Your task to perform on an android device: change timer sound Image 0: 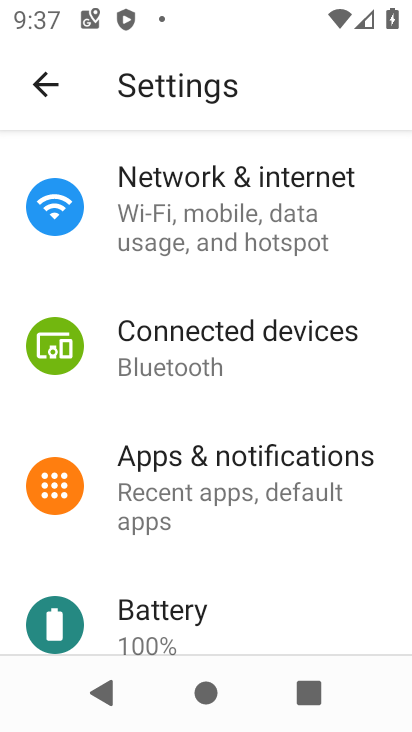
Step 0: drag from (322, 577) to (337, 247)
Your task to perform on an android device: change timer sound Image 1: 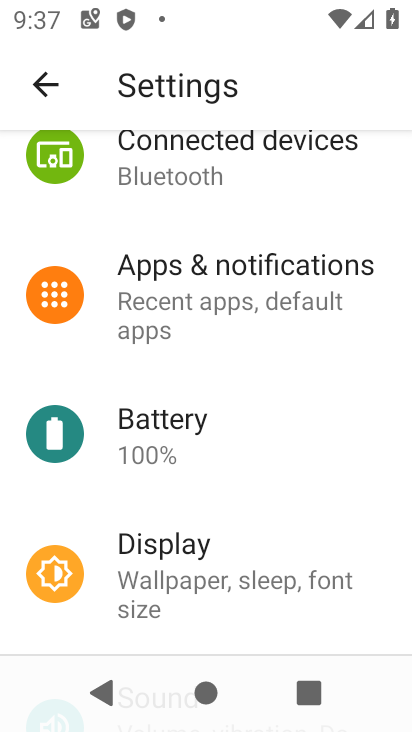
Step 1: drag from (323, 611) to (317, 275)
Your task to perform on an android device: change timer sound Image 2: 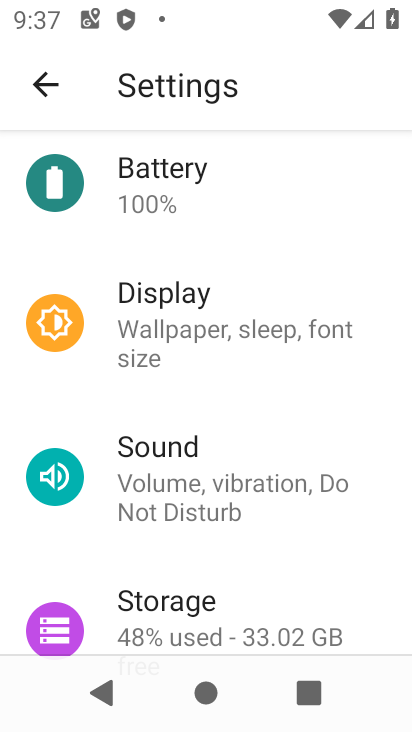
Step 2: press home button
Your task to perform on an android device: change timer sound Image 3: 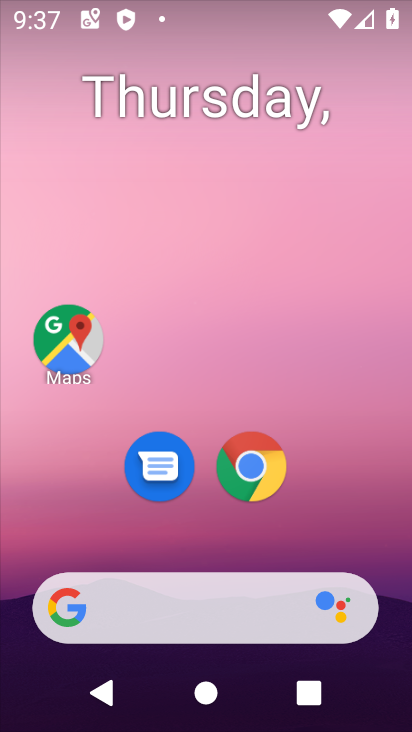
Step 3: drag from (357, 509) to (353, 89)
Your task to perform on an android device: change timer sound Image 4: 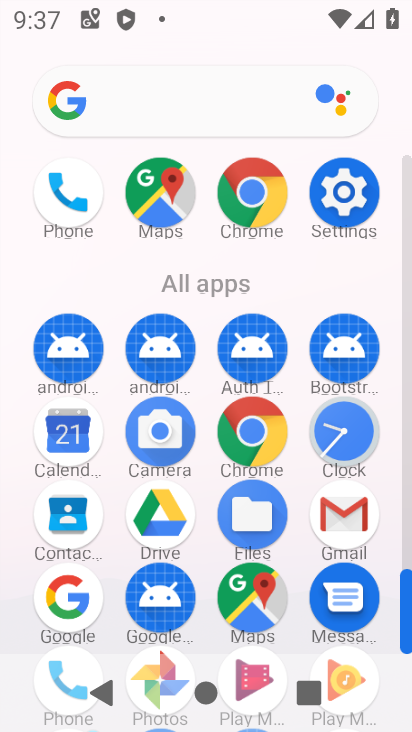
Step 4: click (347, 445)
Your task to perform on an android device: change timer sound Image 5: 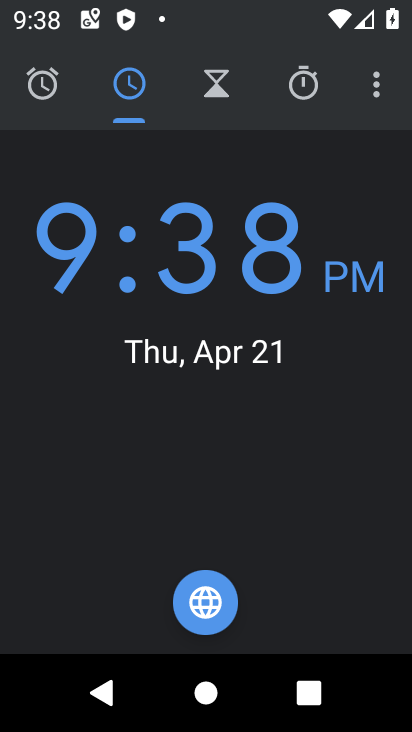
Step 5: click (381, 99)
Your task to perform on an android device: change timer sound Image 6: 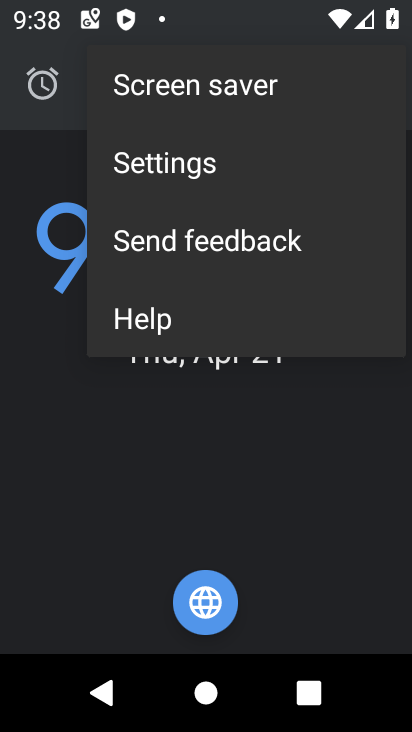
Step 6: click (207, 165)
Your task to perform on an android device: change timer sound Image 7: 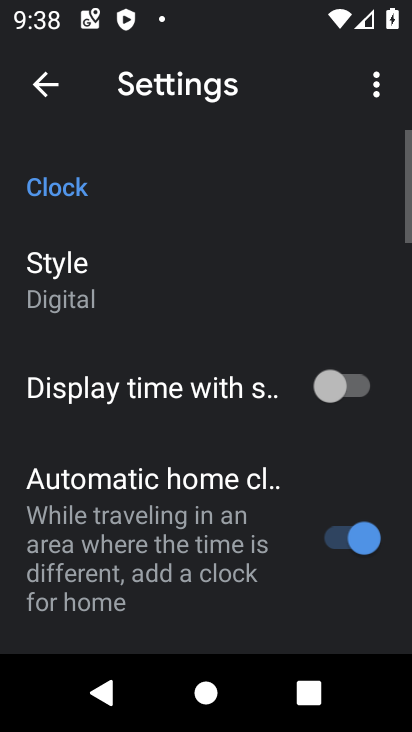
Step 7: drag from (187, 554) to (205, 301)
Your task to perform on an android device: change timer sound Image 8: 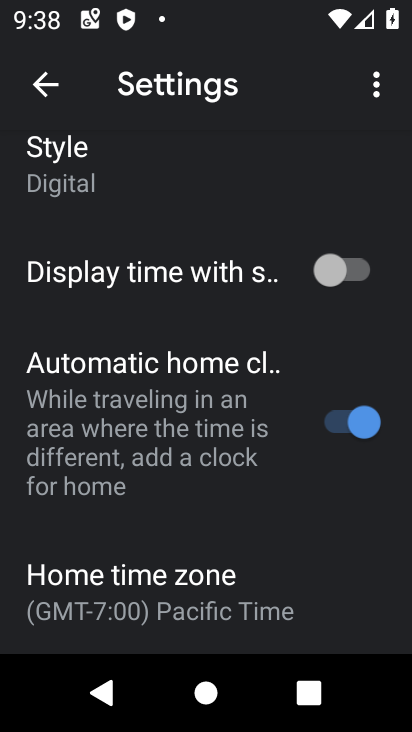
Step 8: drag from (209, 398) to (246, 197)
Your task to perform on an android device: change timer sound Image 9: 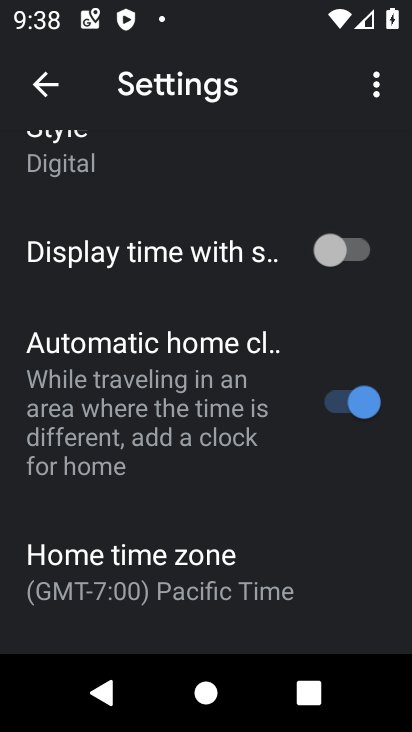
Step 9: drag from (192, 558) to (271, 193)
Your task to perform on an android device: change timer sound Image 10: 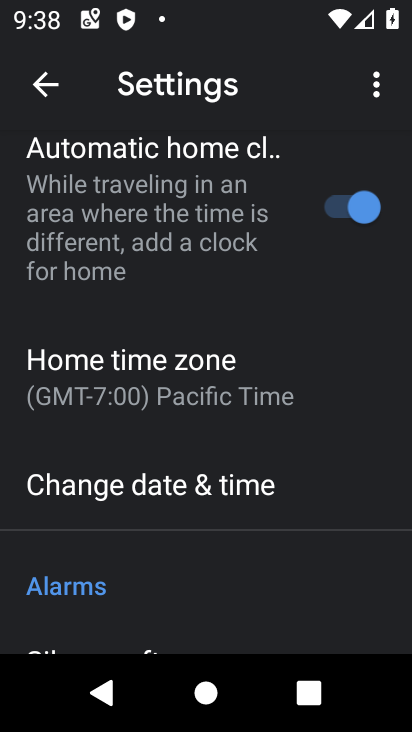
Step 10: drag from (186, 562) to (229, 160)
Your task to perform on an android device: change timer sound Image 11: 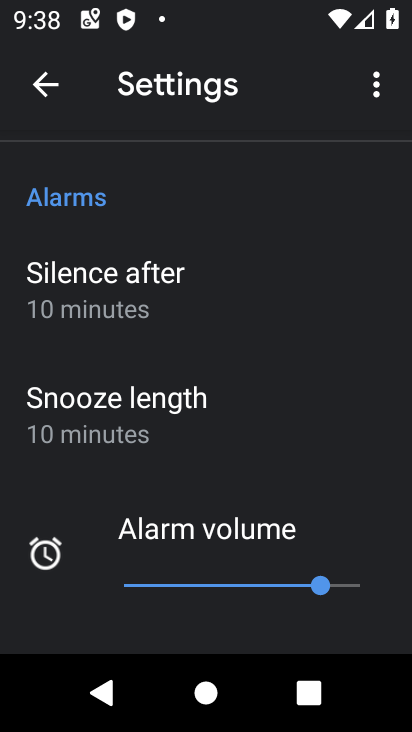
Step 11: drag from (219, 483) to (259, 115)
Your task to perform on an android device: change timer sound Image 12: 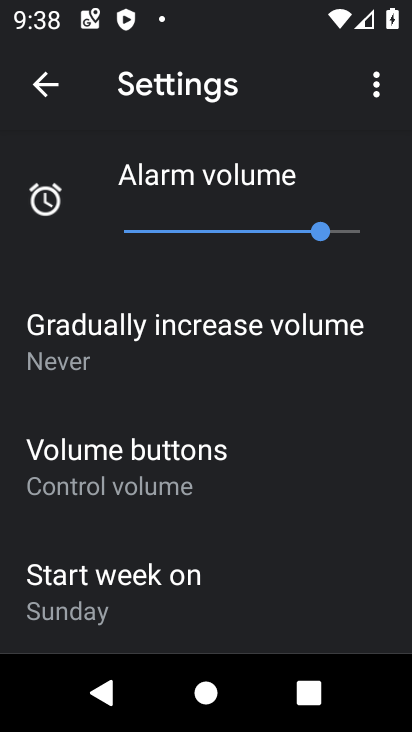
Step 12: drag from (227, 502) to (273, 188)
Your task to perform on an android device: change timer sound Image 13: 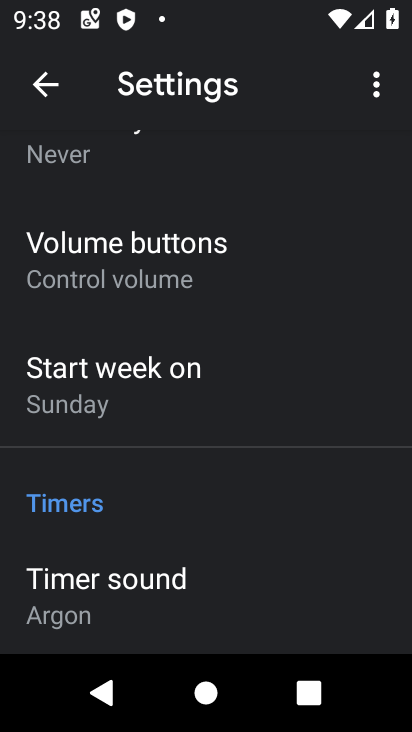
Step 13: drag from (230, 516) to (275, 253)
Your task to perform on an android device: change timer sound Image 14: 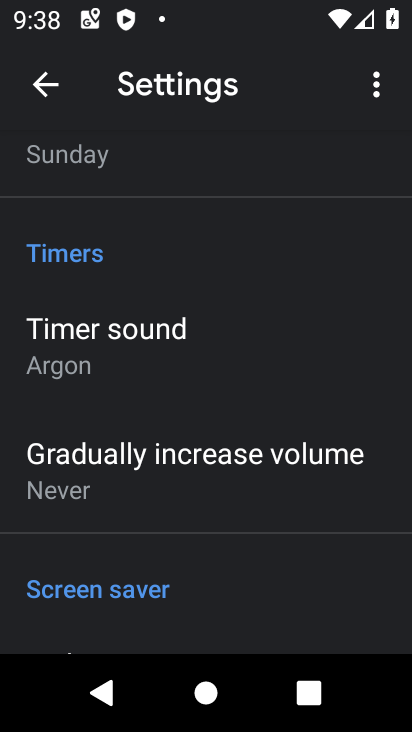
Step 14: click (163, 339)
Your task to perform on an android device: change timer sound Image 15: 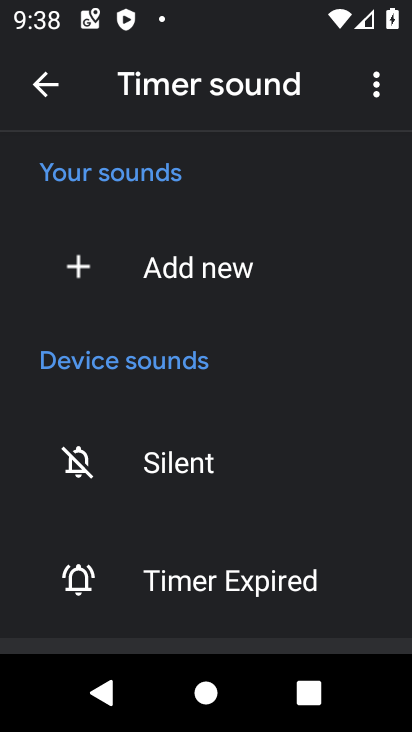
Step 15: drag from (305, 502) to (385, 252)
Your task to perform on an android device: change timer sound Image 16: 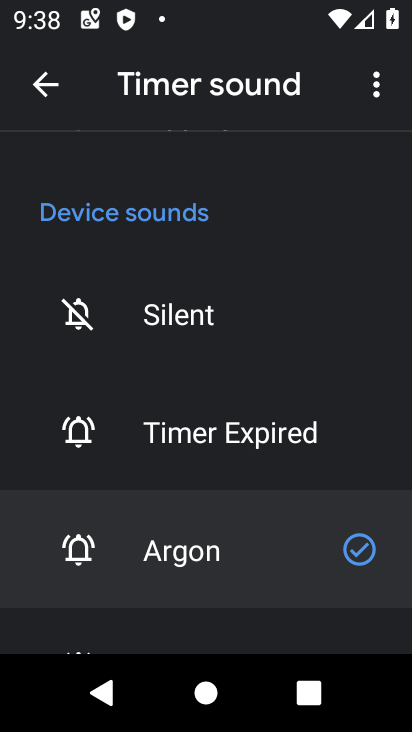
Step 16: drag from (263, 504) to (315, 227)
Your task to perform on an android device: change timer sound Image 17: 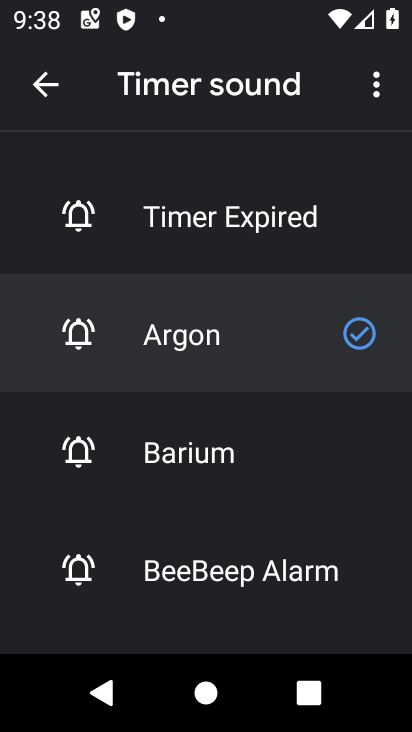
Step 17: click (241, 438)
Your task to perform on an android device: change timer sound Image 18: 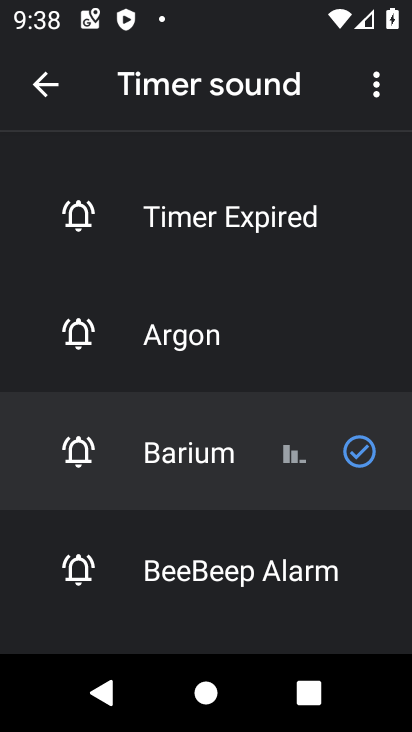
Step 18: task complete